Your task to perform on an android device: open app "Google Photos" Image 0: 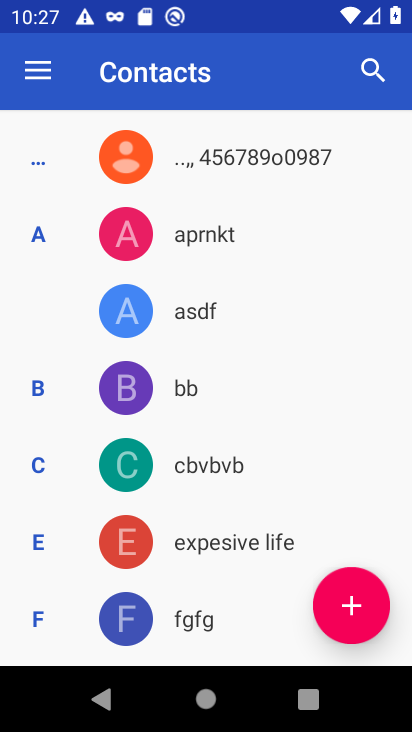
Step 0: press home button
Your task to perform on an android device: open app "Google Photos" Image 1: 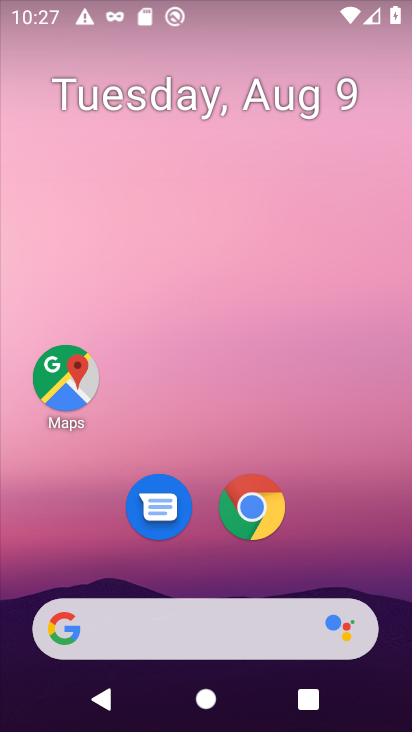
Step 1: drag from (175, 637) to (293, 205)
Your task to perform on an android device: open app "Google Photos" Image 2: 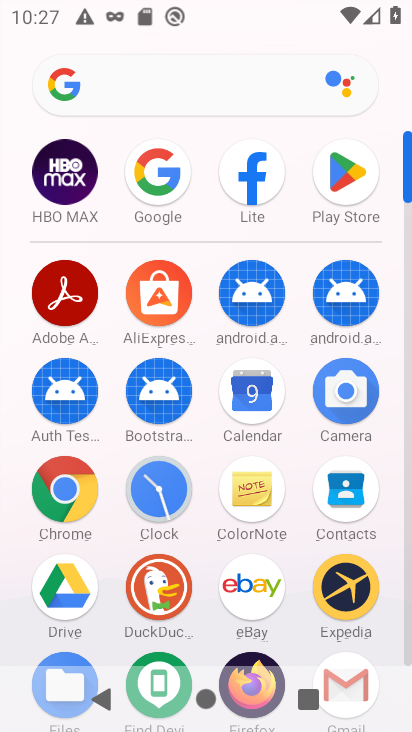
Step 2: drag from (300, 544) to (331, 377)
Your task to perform on an android device: open app "Google Photos" Image 3: 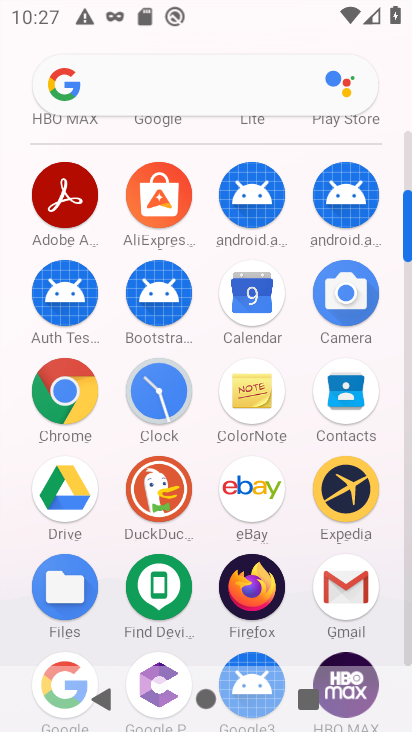
Step 3: drag from (288, 602) to (342, 489)
Your task to perform on an android device: open app "Google Photos" Image 4: 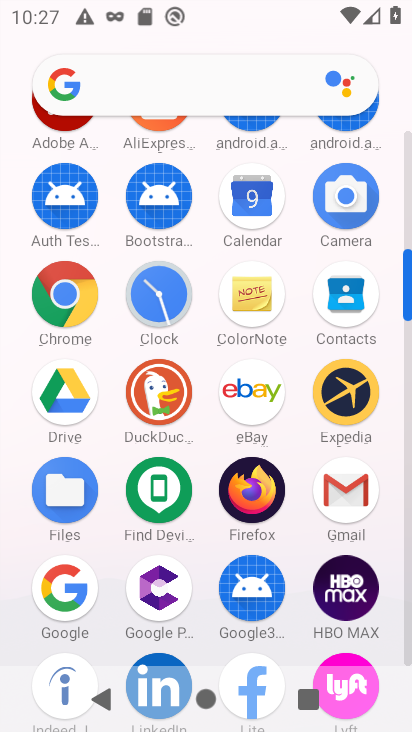
Step 4: drag from (293, 596) to (333, 383)
Your task to perform on an android device: open app "Google Photos" Image 5: 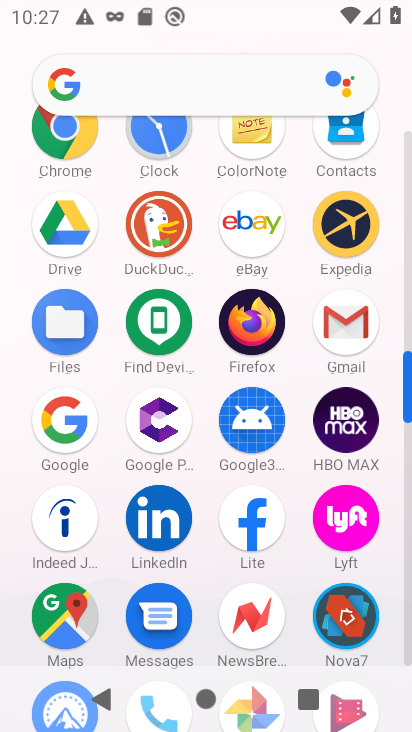
Step 5: drag from (305, 588) to (356, 389)
Your task to perform on an android device: open app "Google Photos" Image 6: 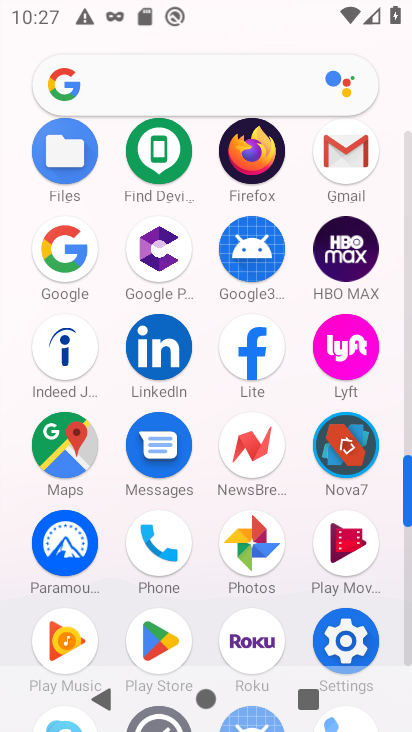
Step 6: click (255, 540)
Your task to perform on an android device: open app "Google Photos" Image 7: 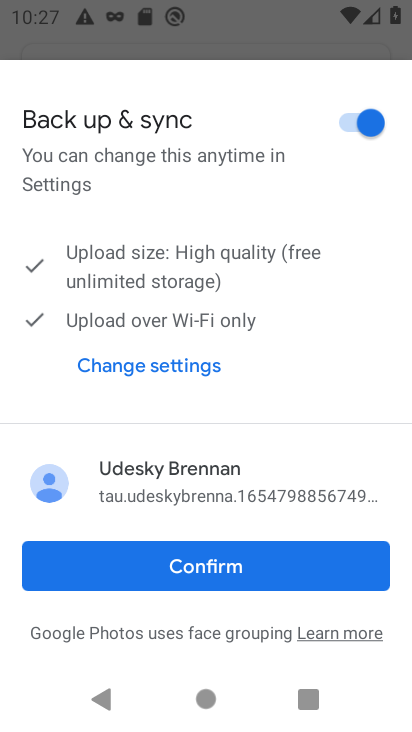
Step 7: click (227, 573)
Your task to perform on an android device: open app "Google Photos" Image 8: 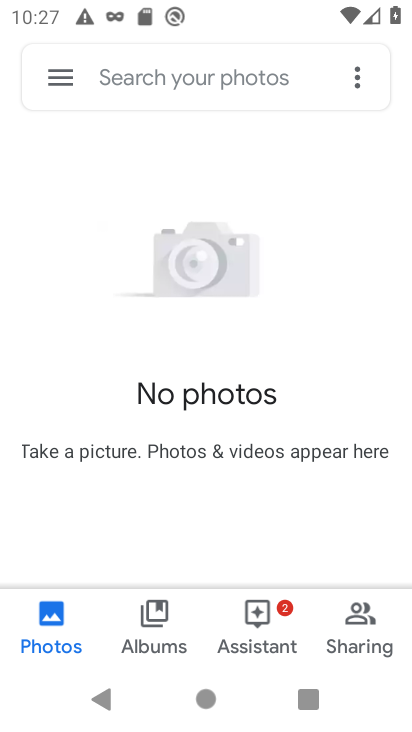
Step 8: task complete